Your task to perform on an android device: What's the latest video from IGN? Image 0: 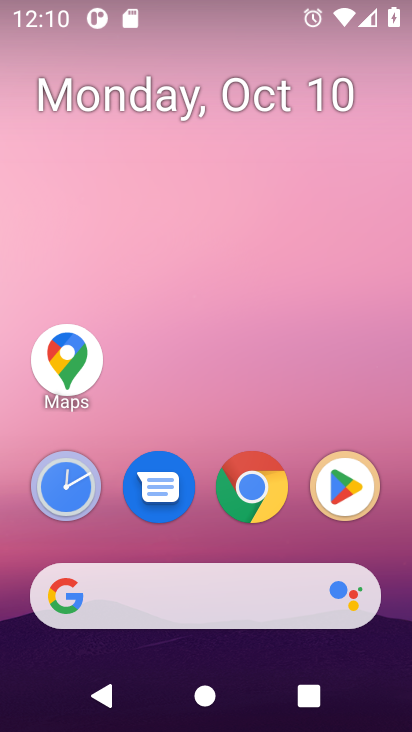
Step 0: drag from (193, 561) to (147, 13)
Your task to perform on an android device: What's the latest video from IGN? Image 1: 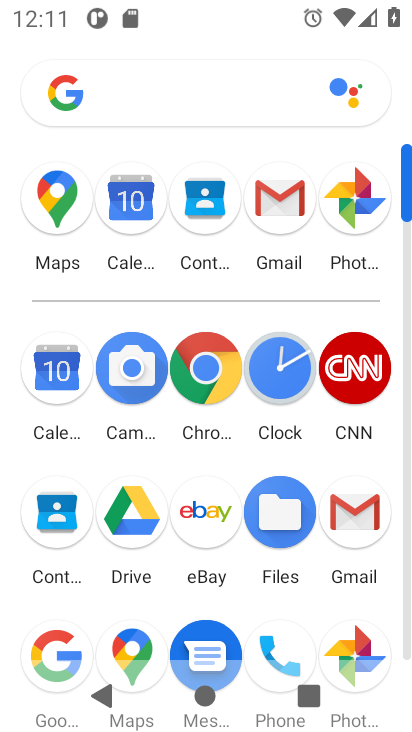
Step 1: click (204, 369)
Your task to perform on an android device: What's the latest video from IGN? Image 2: 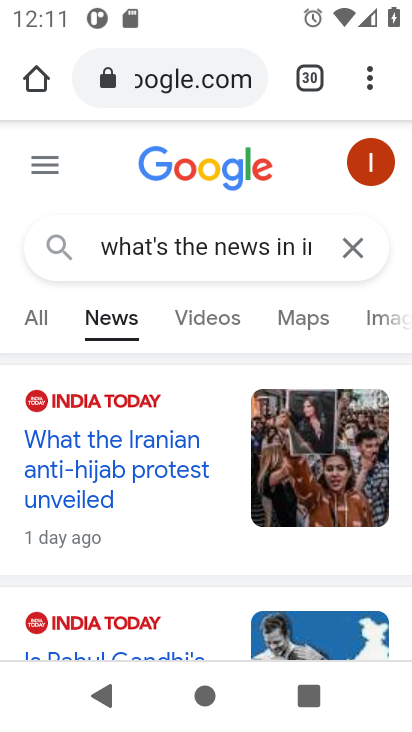
Step 2: click (349, 252)
Your task to perform on an android device: What's the latest video from IGN? Image 3: 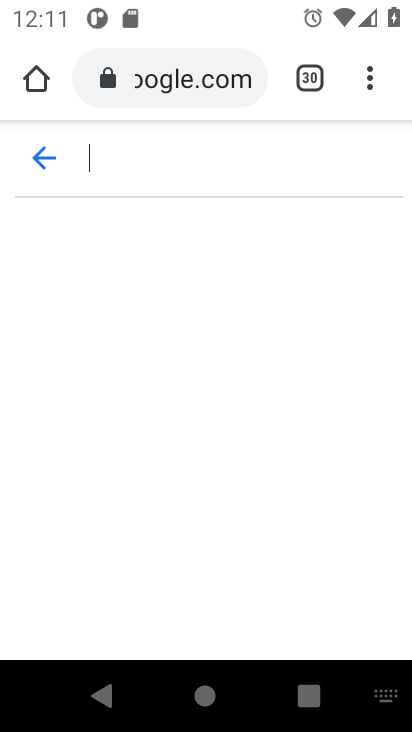
Step 3: type "What's the latest video from IGN?"
Your task to perform on an android device: What's the latest video from IGN? Image 4: 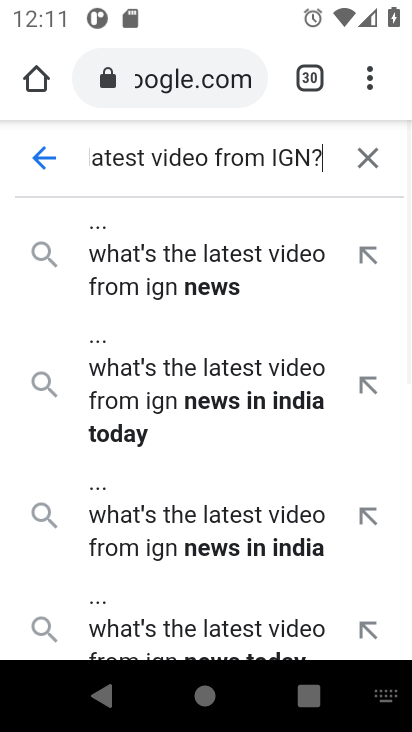
Step 4: type ""
Your task to perform on an android device: What's the latest video from IGN? Image 5: 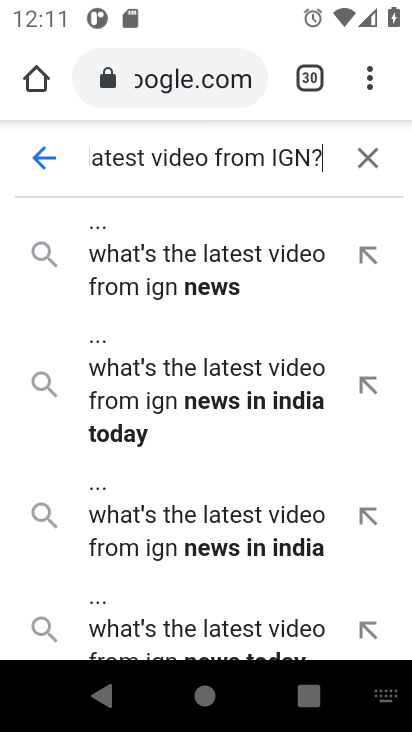
Step 5: drag from (235, 594) to (197, 361)
Your task to perform on an android device: What's the latest video from IGN? Image 6: 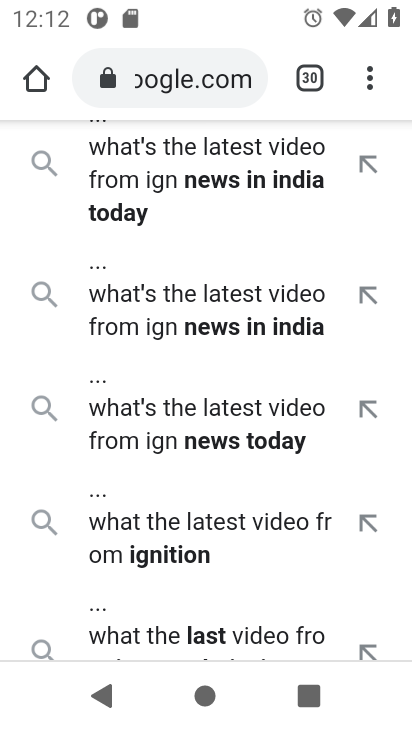
Step 6: drag from (208, 256) to (194, 492)
Your task to perform on an android device: What's the latest video from IGN? Image 7: 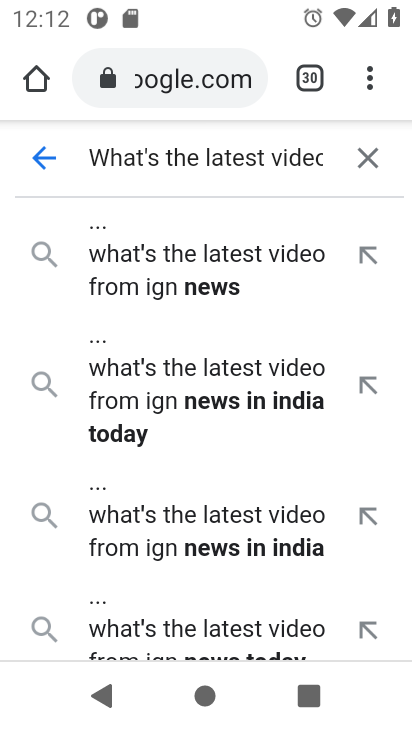
Step 7: click (205, 246)
Your task to perform on an android device: What's the latest video from IGN? Image 8: 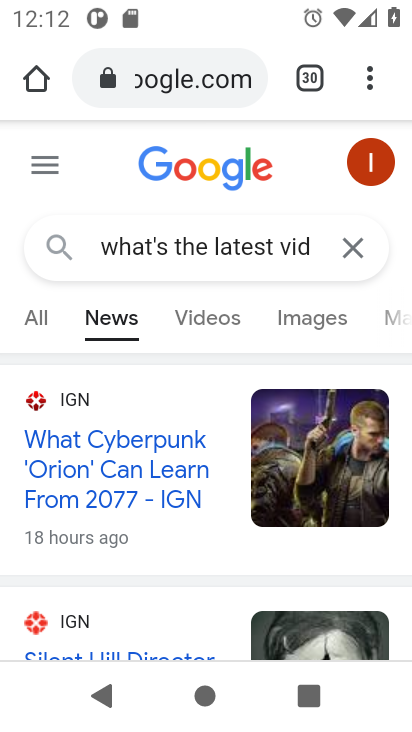
Step 8: click (35, 317)
Your task to perform on an android device: What's the latest video from IGN? Image 9: 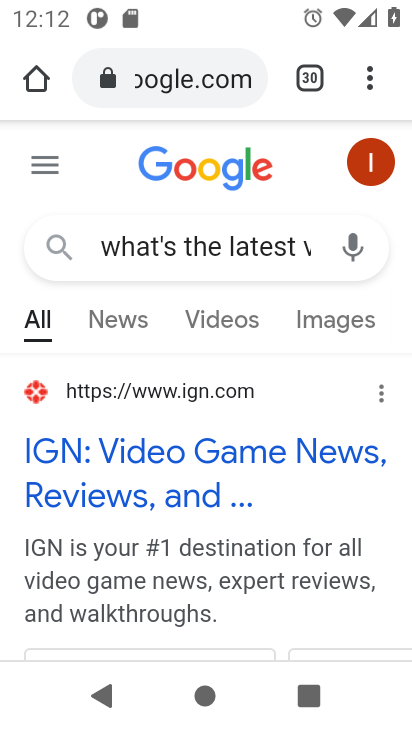
Step 9: click (158, 455)
Your task to perform on an android device: What's the latest video from IGN? Image 10: 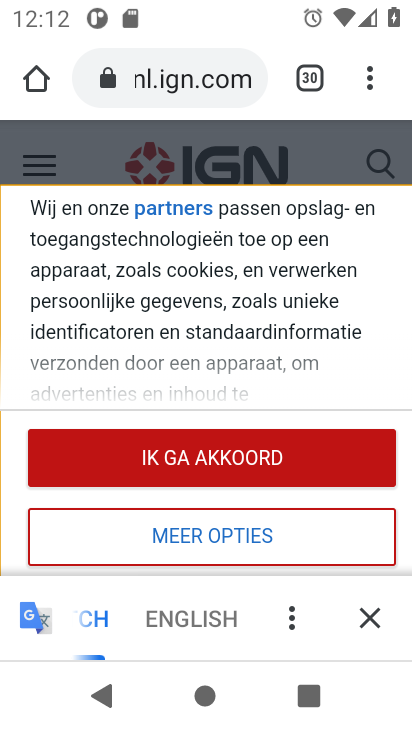
Step 10: click (367, 620)
Your task to perform on an android device: What's the latest video from IGN? Image 11: 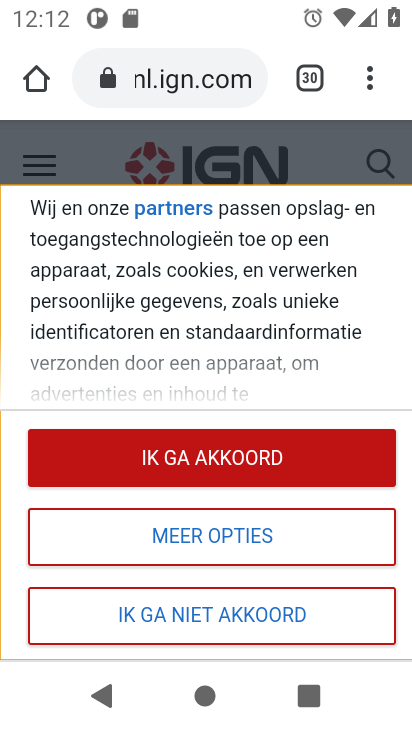
Step 11: click (221, 472)
Your task to perform on an android device: What's the latest video from IGN? Image 12: 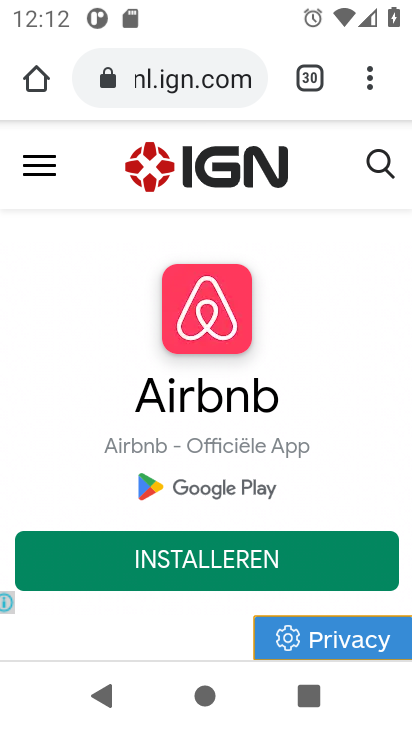
Step 12: task complete